Your task to perform on an android device: toggle airplane mode Image 0: 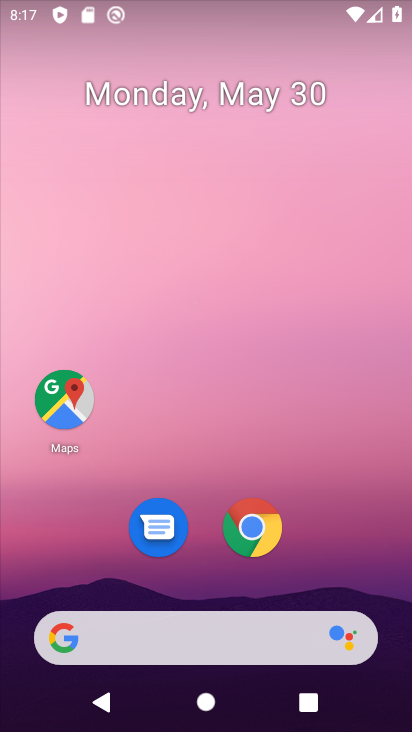
Step 0: drag from (341, 559) to (329, 0)
Your task to perform on an android device: toggle airplane mode Image 1: 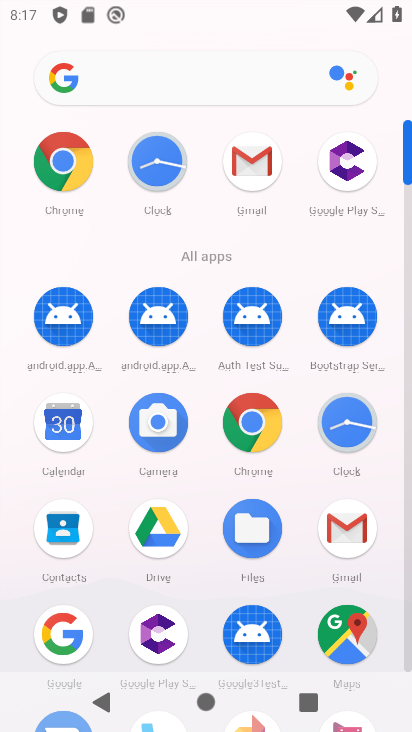
Step 1: drag from (203, 583) to (230, 132)
Your task to perform on an android device: toggle airplane mode Image 2: 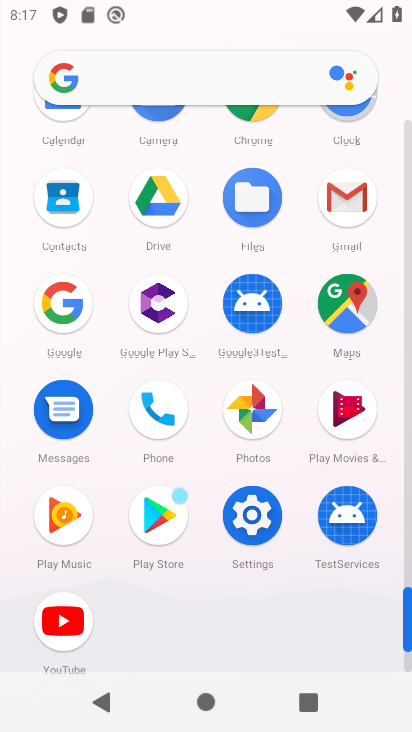
Step 2: click (243, 518)
Your task to perform on an android device: toggle airplane mode Image 3: 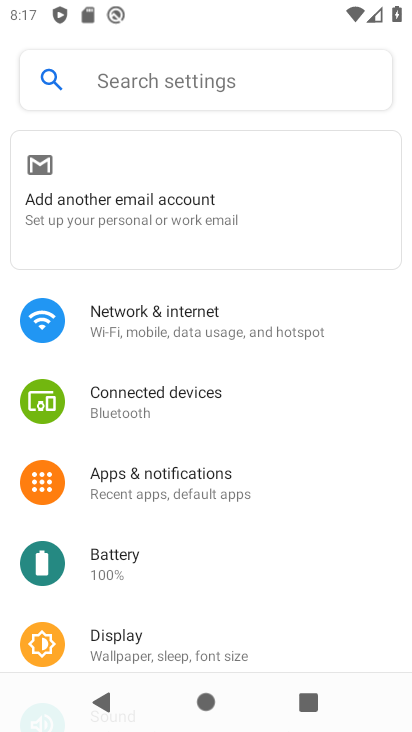
Step 3: click (178, 330)
Your task to perform on an android device: toggle airplane mode Image 4: 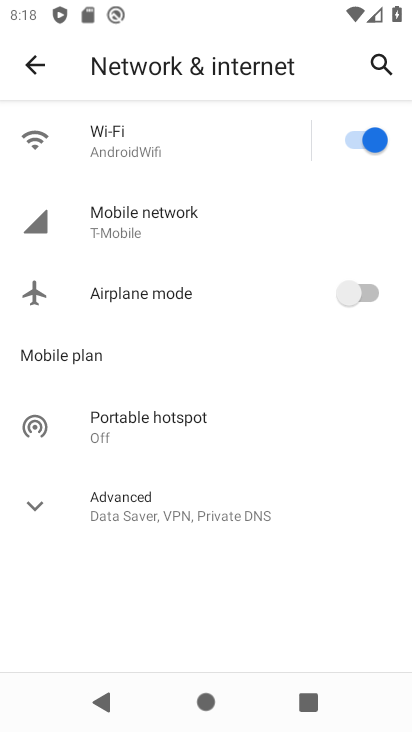
Step 4: click (392, 293)
Your task to perform on an android device: toggle airplane mode Image 5: 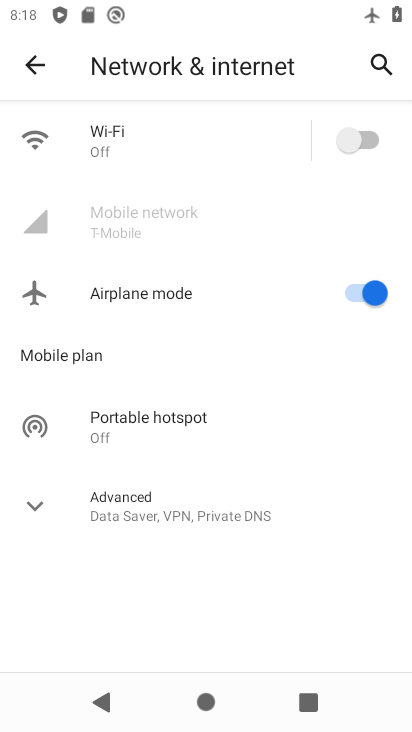
Step 5: task complete